Your task to perform on an android device: turn off notifications in google photos Image 0: 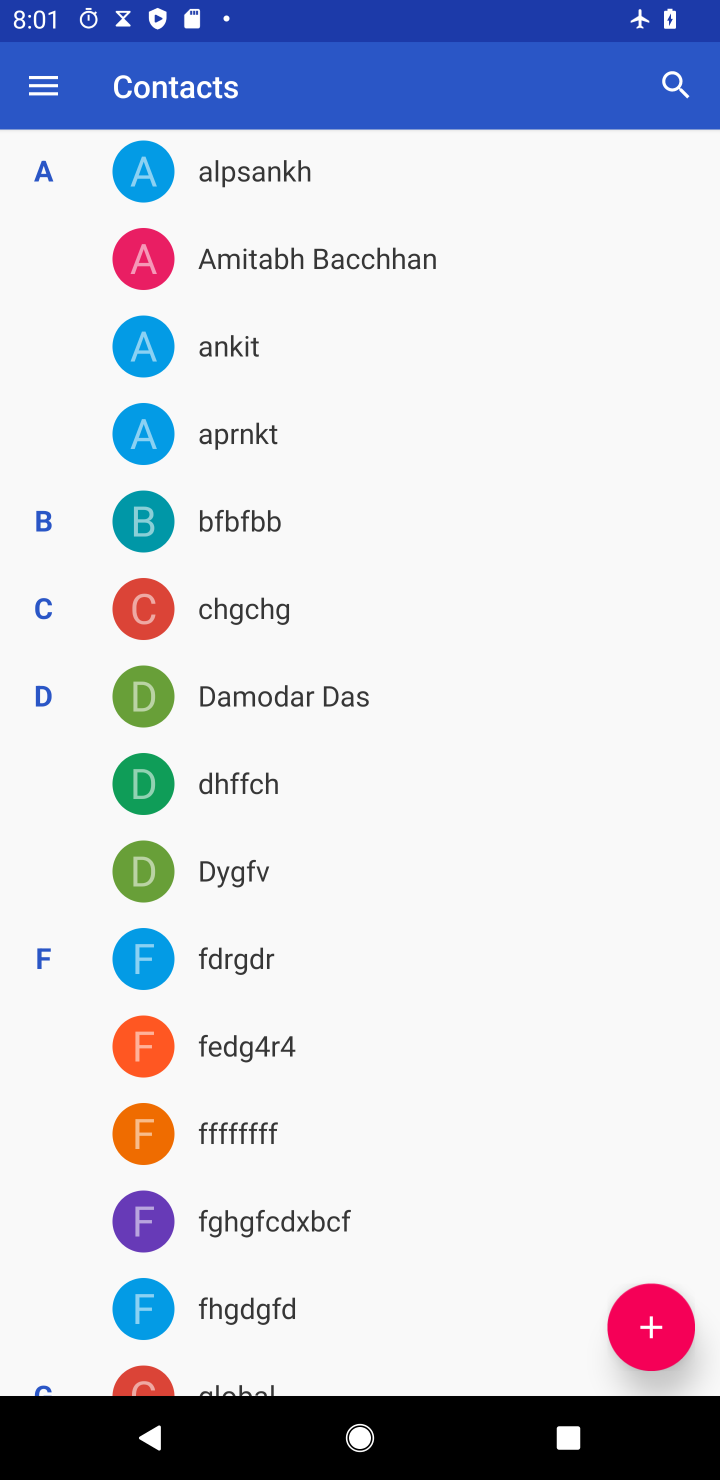
Step 0: press home button
Your task to perform on an android device: turn off notifications in google photos Image 1: 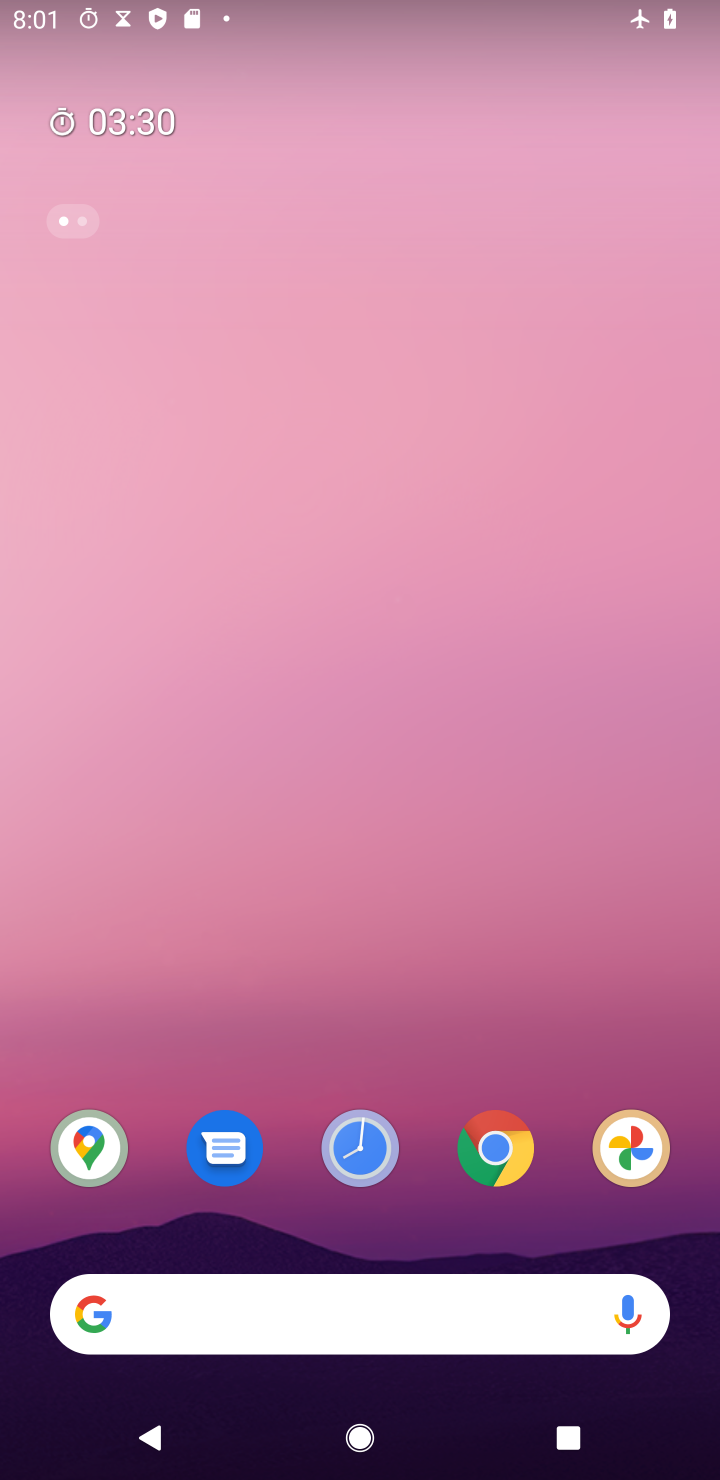
Step 1: click (632, 1164)
Your task to perform on an android device: turn off notifications in google photos Image 2: 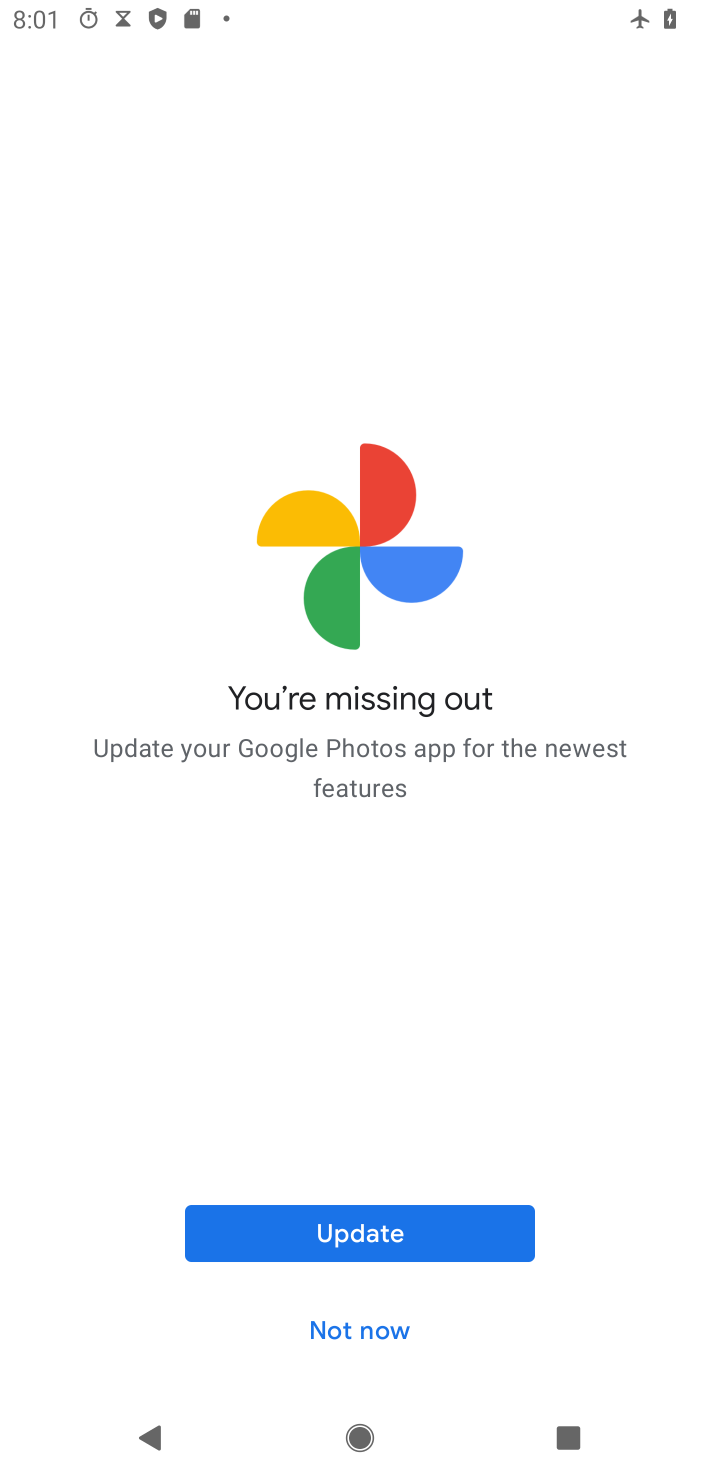
Step 2: click (216, 1219)
Your task to perform on an android device: turn off notifications in google photos Image 3: 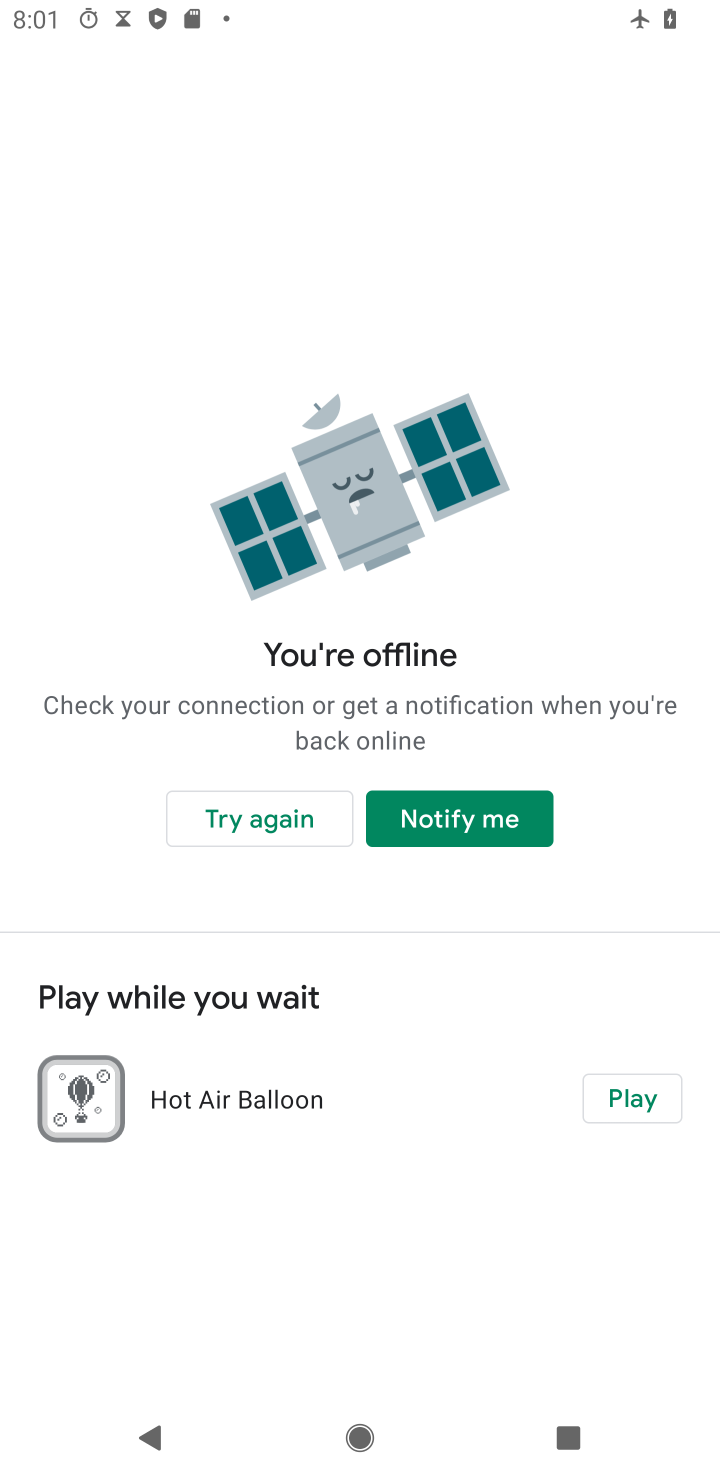
Step 3: task complete